Your task to perform on an android device: Turn on the flashlight Image 0: 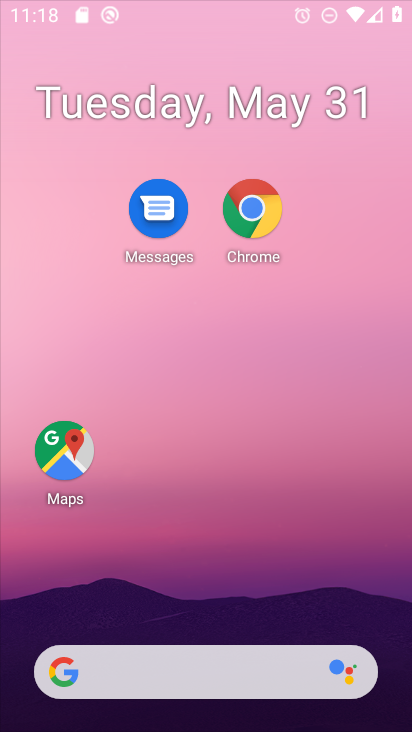
Step 0: press home button
Your task to perform on an android device: Turn on the flashlight Image 1: 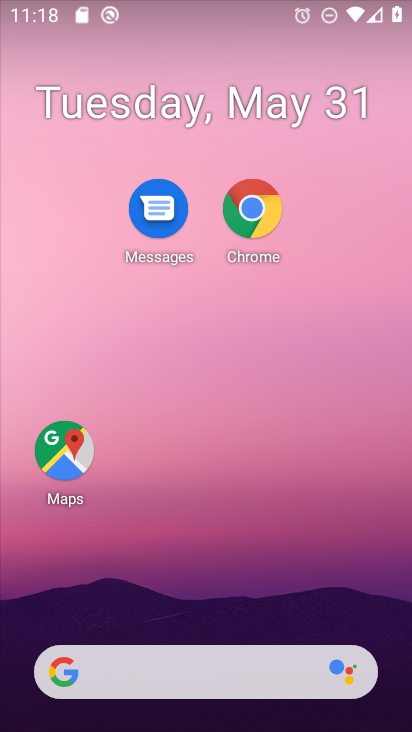
Step 1: drag from (211, 626) to (208, 61)
Your task to perform on an android device: Turn on the flashlight Image 2: 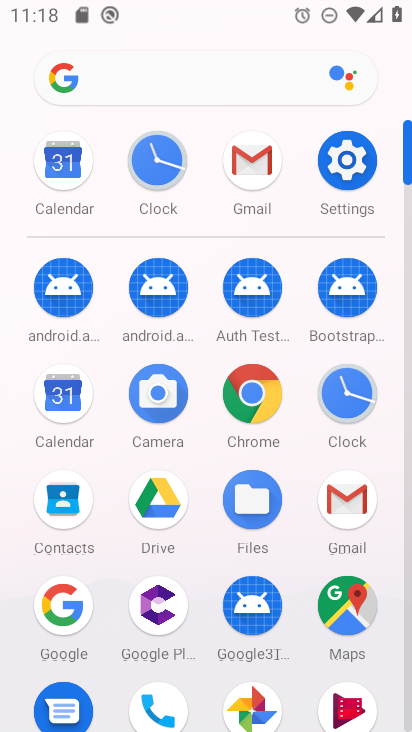
Step 2: click (349, 156)
Your task to perform on an android device: Turn on the flashlight Image 3: 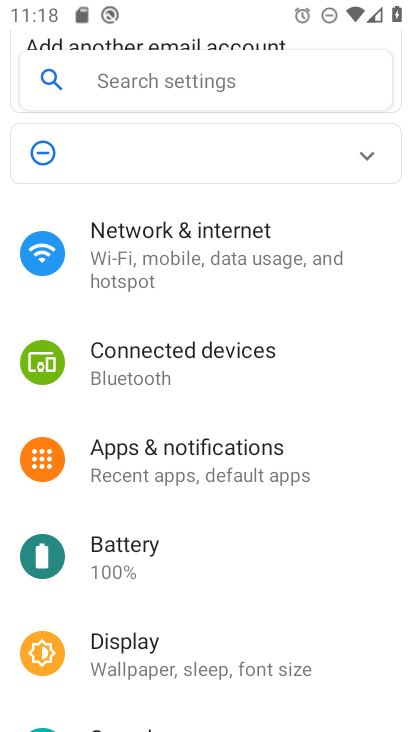
Step 3: click (162, 77)
Your task to perform on an android device: Turn on the flashlight Image 4: 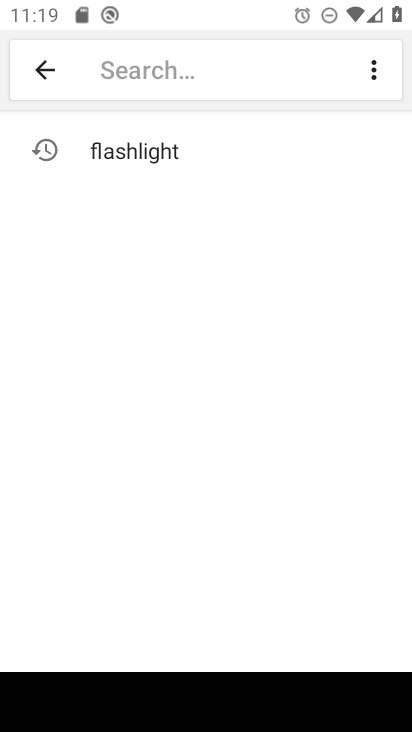
Step 4: click (151, 149)
Your task to perform on an android device: Turn on the flashlight Image 5: 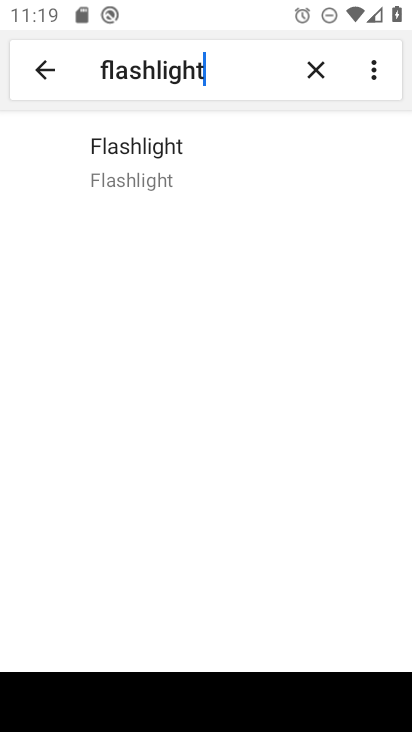
Step 5: click (159, 166)
Your task to perform on an android device: Turn on the flashlight Image 6: 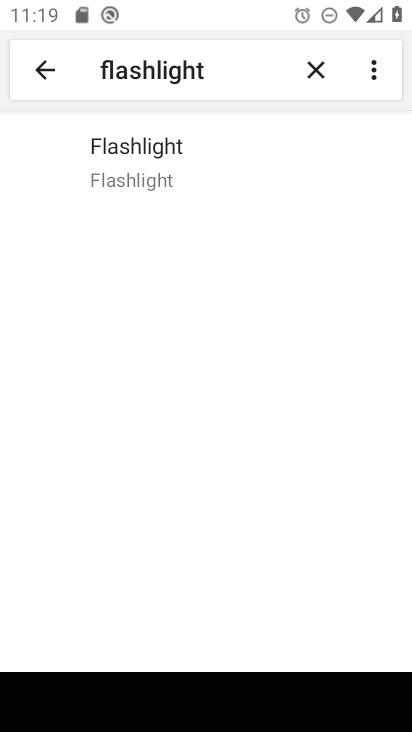
Step 6: task complete